Your task to perform on an android device: Open Google Maps Image 0: 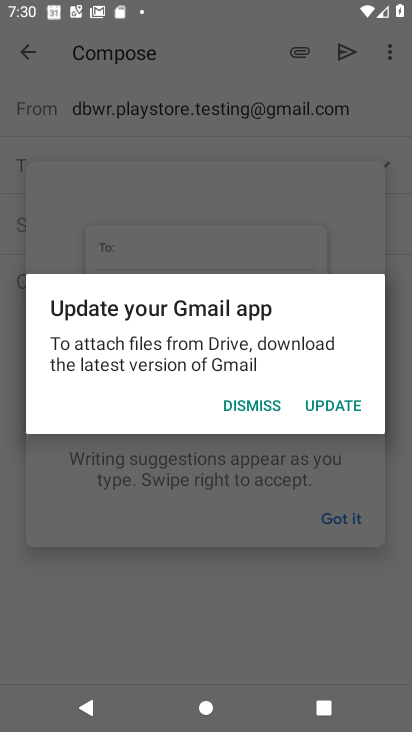
Step 0: click (331, 519)
Your task to perform on an android device: Open Google Maps Image 1: 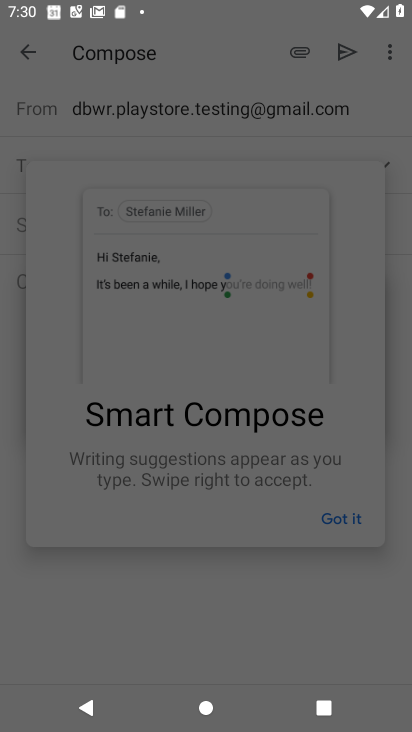
Step 1: click (347, 515)
Your task to perform on an android device: Open Google Maps Image 2: 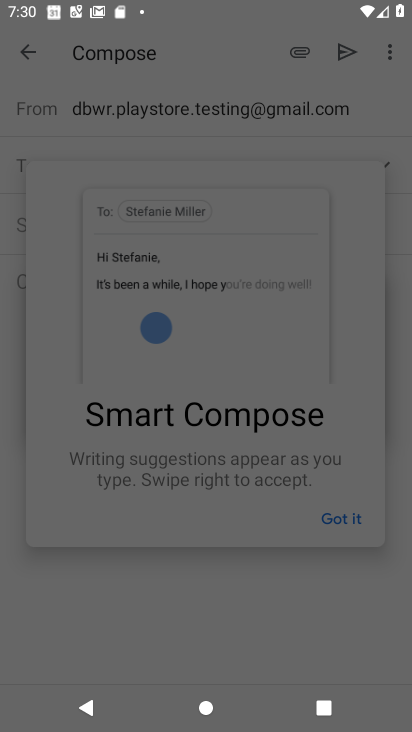
Step 2: press home button
Your task to perform on an android device: Open Google Maps Image 3: 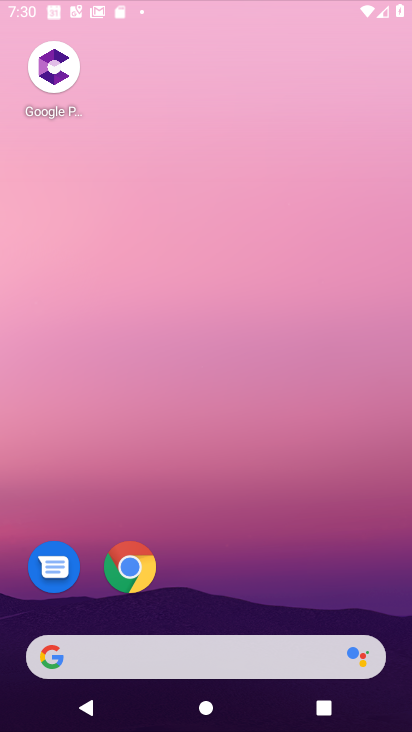
Step 3: click (341, 527)
Your task to perform on an android device: Open Google Maps Image 4: 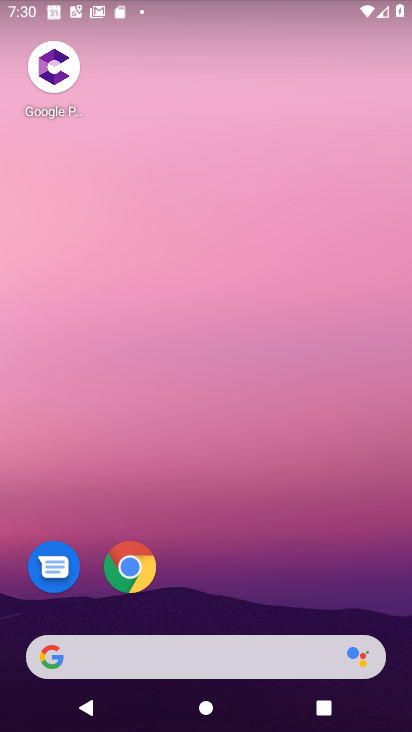
Step 4: drag from (190, 587) to (208, 112)
Your task to perform on an android device: Open Google Maps Image 5: 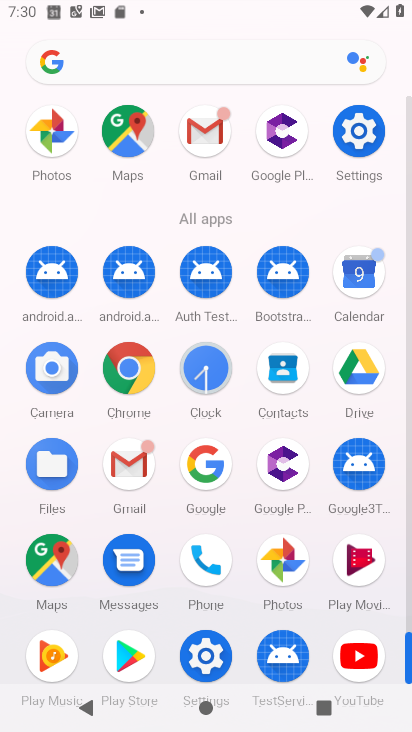
Step 5: drag from (239, 658) to (237, 208)
Your task to perform on an android device: Open Google Maps Image 6: 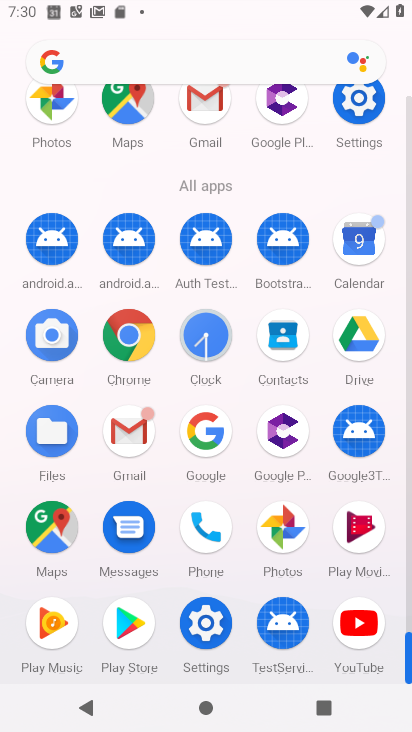
Step 6: click (52, 514)
Your task to perform on an android device: Open Google Maps Image 7: 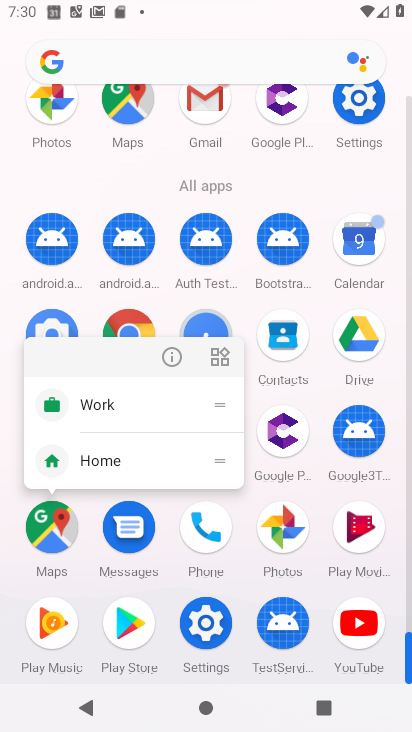
Step 7: click (169, 346)
Your task to perform on an android device: Open Google Maps Image 8: 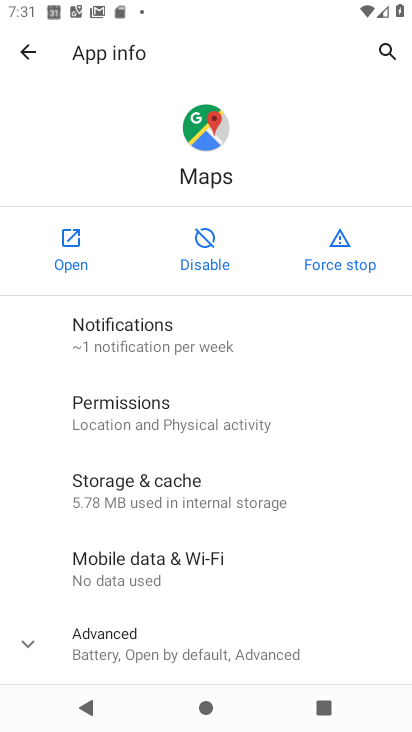
Step 8: click (81, 244)
Your task to perform on an android device: Open Google Maps Image 9: 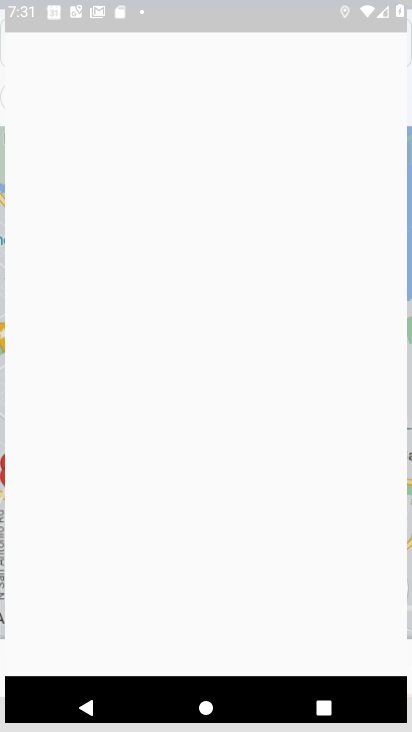
Step 9: task complete